Your task to perform on an android device: Go to accessibility settings Image 0: 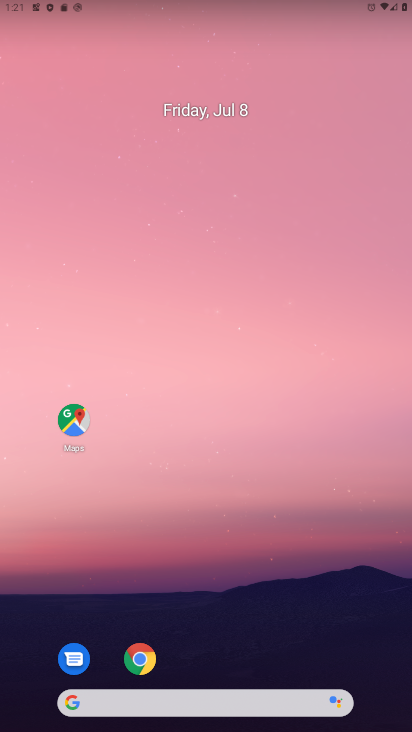
Step 0: drag from (250, 608) to (186, 182)
Your task to perform on an android device: Go to accessibility settings Image 1: 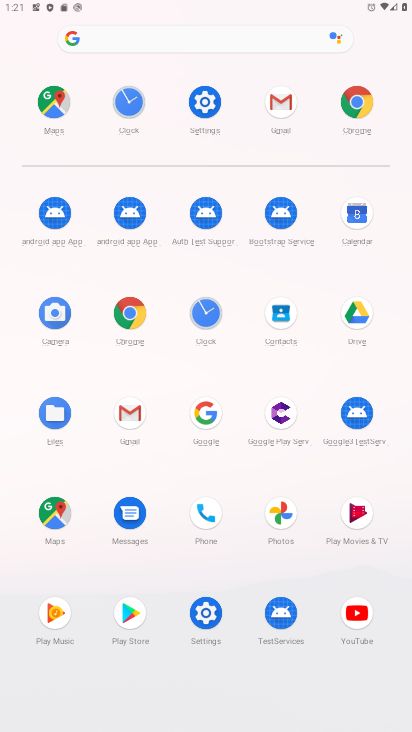
Step 1: click (202, 96)
Your task to perform on an android device: Go to accessibility settings Image 2: 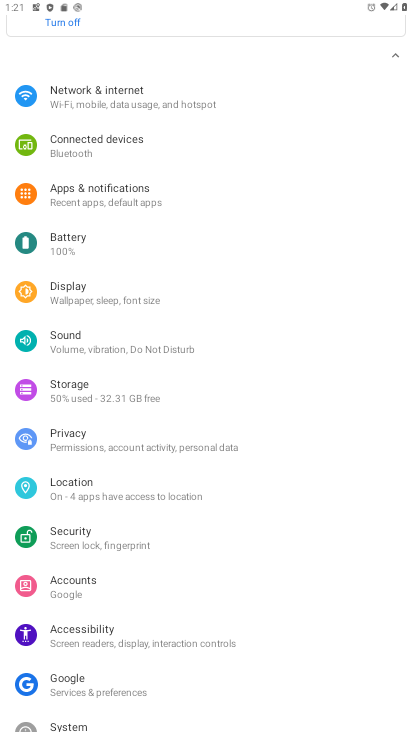
Step 2: click (88, 626)
Your task to perform on an android device: Go to accessibility settings Image 3: 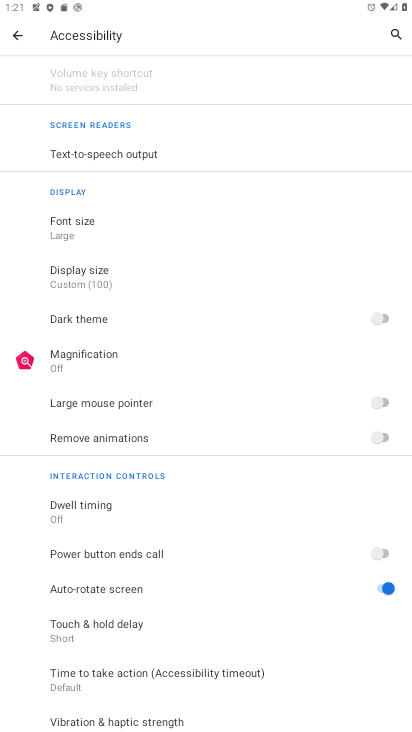
Step 3: task complete